Your task to perform on an android device: change alarm snooze length Image 0: 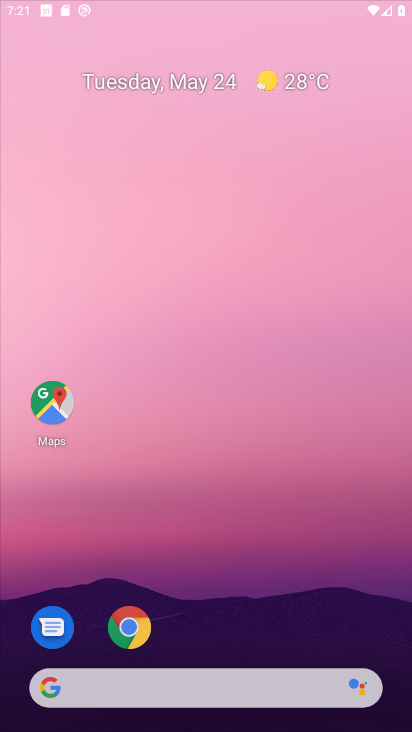
Step 0: press home button
Your task to perform on an android device: change alarm snooze length Image 1: 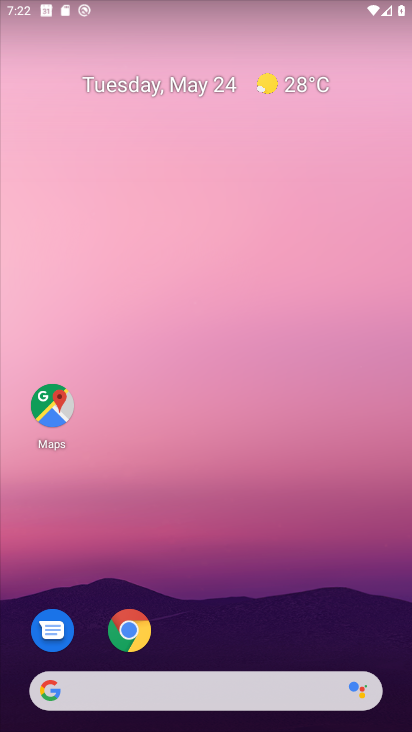
Step 1: drag from (308, 716) to (193, 94)
Your task to perform on an android device: change alarm snooze length Image 2: 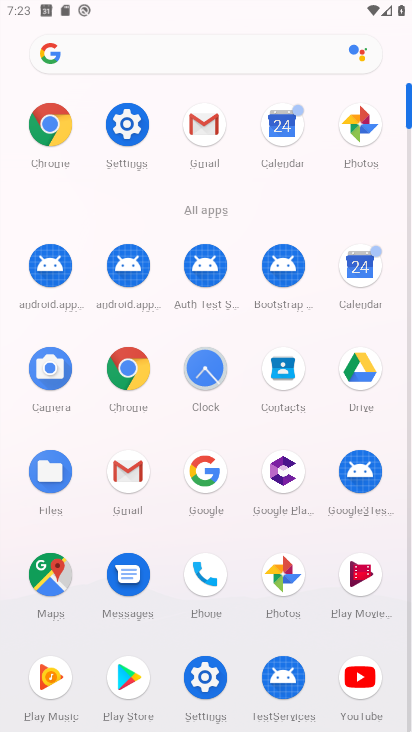
Step 2: click (205, 373)
Your task to perform on an android device: change alarm snooze length Image 3: 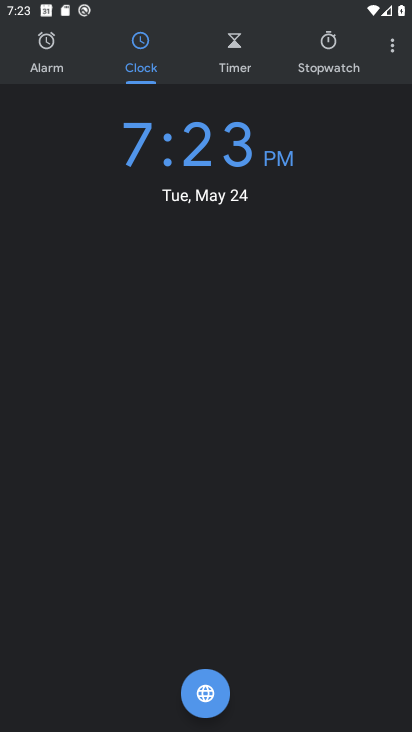
Step 3: click (386, 48)
Your task to perform on an android device: change alarm snooze length Image 4: 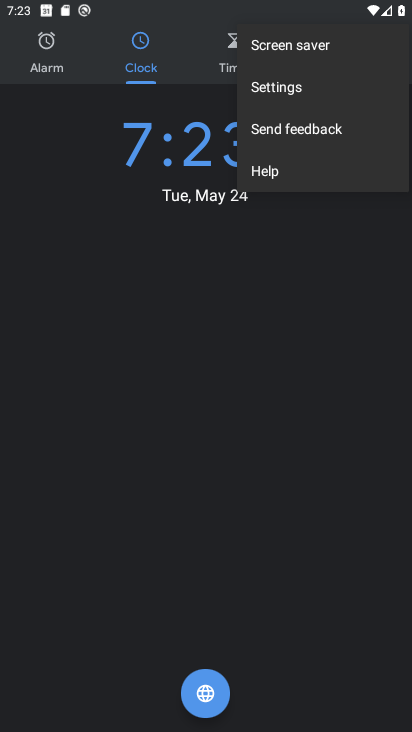
Step 4: click (292, 75)
Your task to perform on an android device: change alarm snooze length Image 5: 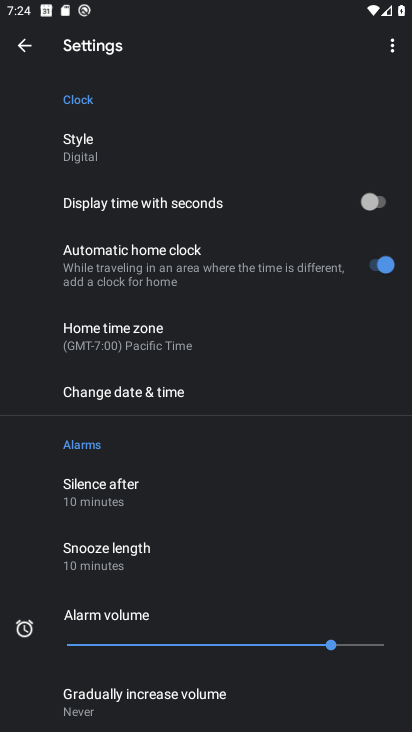
Step 5: click (170, 547)
Your task to perform on an android device: change alarm snooze length Image 6: 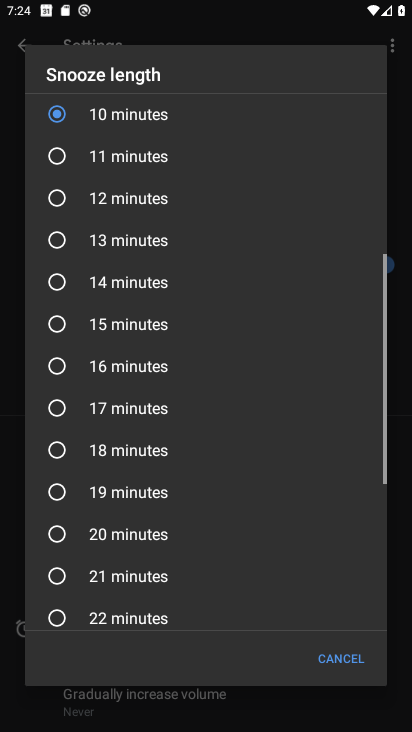
Step 6: click (169, 342)
Your task to perform on an android device: change alarm snooze length Image 7: 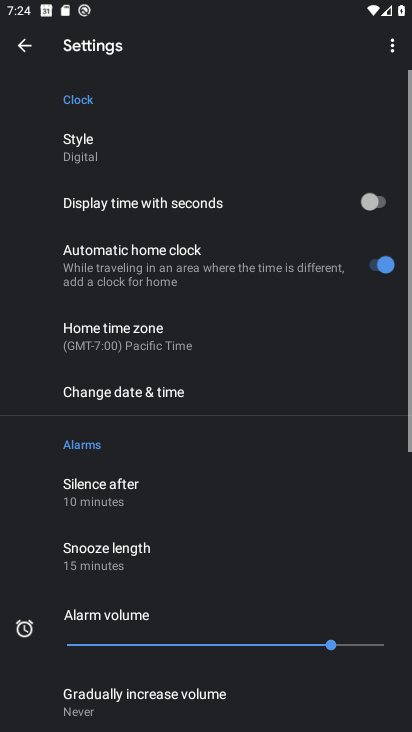
Step 7: task complete